Your task to perform on an android device: uninstall "Google Chrome" Image 0: 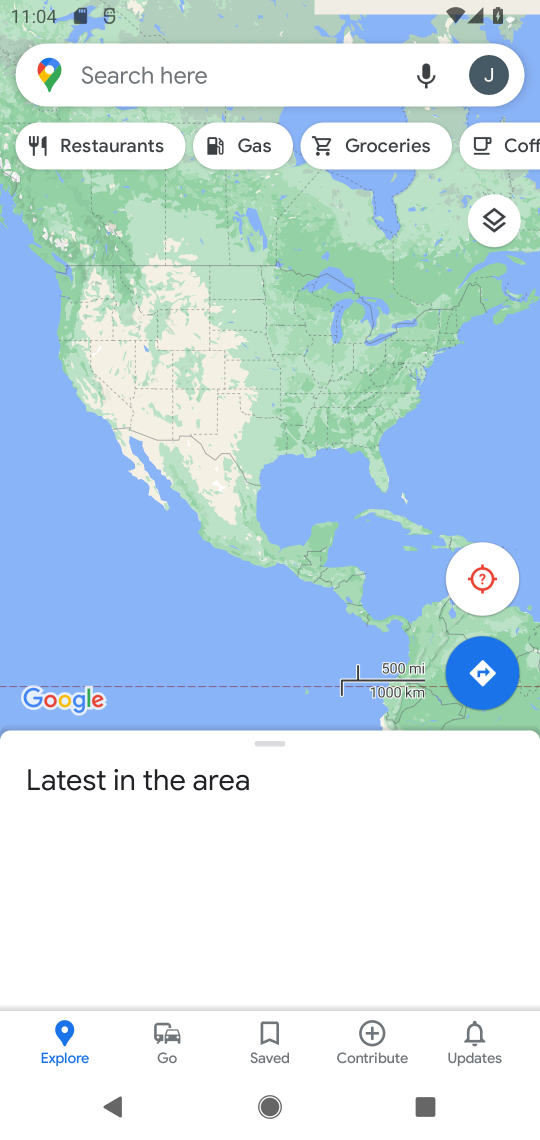
Step 0: press home button
Your task to perform on an android device: uninstall "Google Chrome" Image 1: 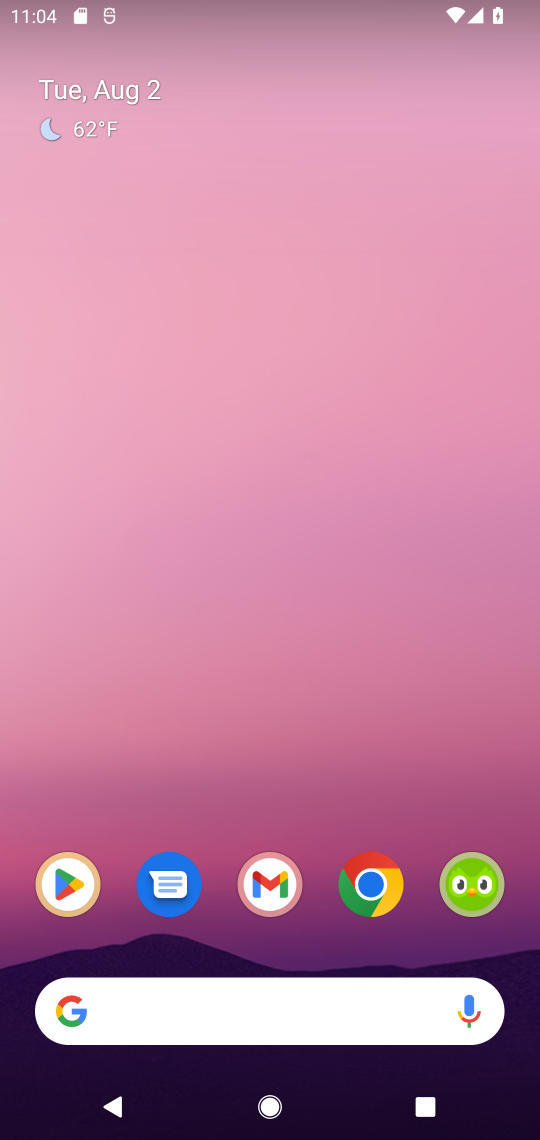
Step 1: click (69, 894)
Your task to perform on an android device: uninstall "Google Chrome" Image 2: 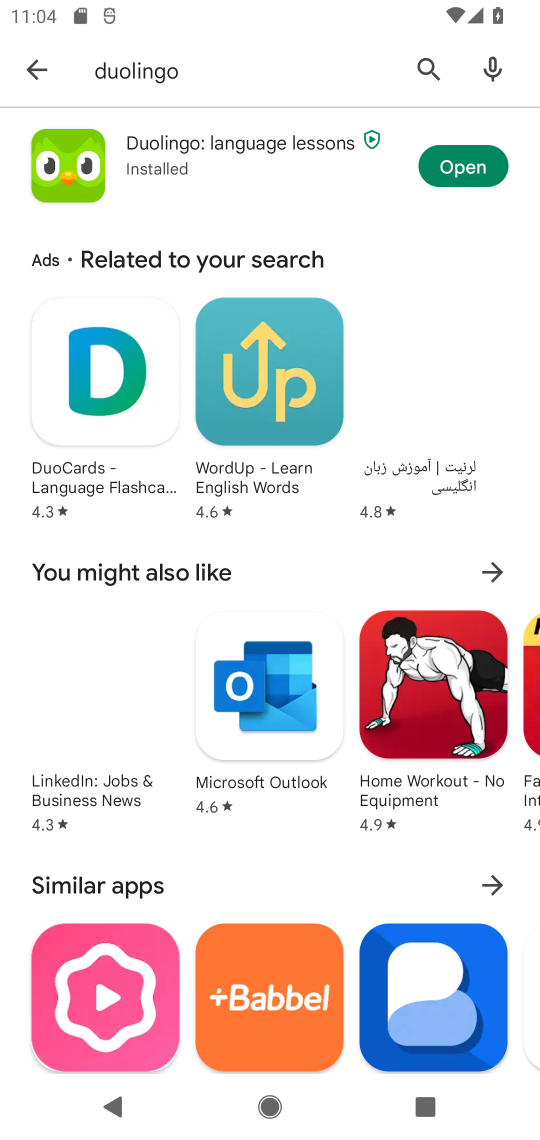
Step 2: click (205, 87)
Your task to perform on an android device: uninstall "Google Chrome" Image 3: 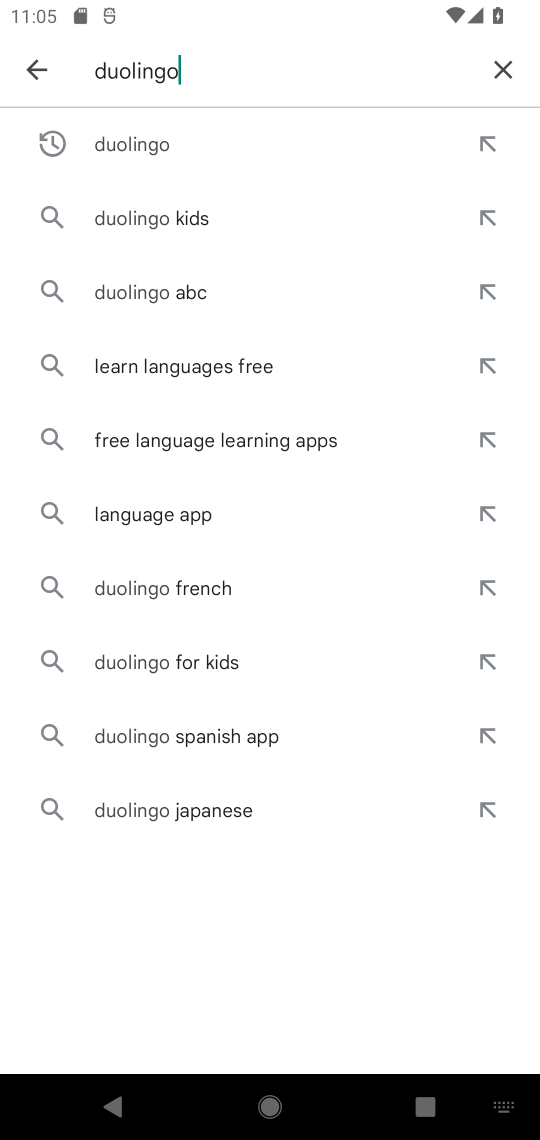
Step 3: click (486, 65)
Your task to perform on an android device: uninstall "Google Chrome" Image 4: 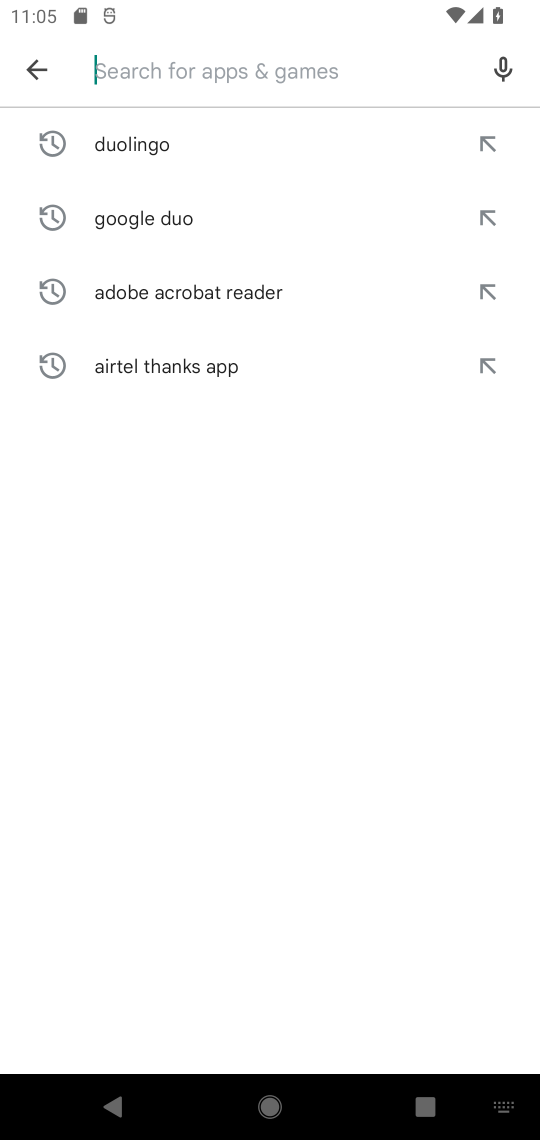
Step 4: type "google chrome"
Your task to perform on an android device: uninstall "Google Chrome" Image 5: 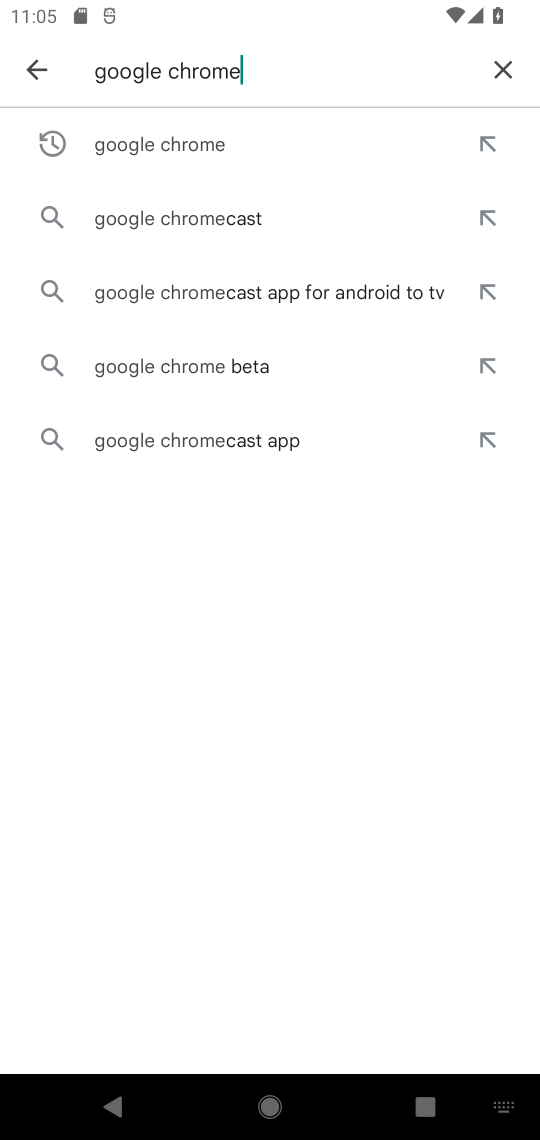
Step 5: click (238, 140)
Your task to perform on an android device: uninstall "Google Chrome" Image 6: 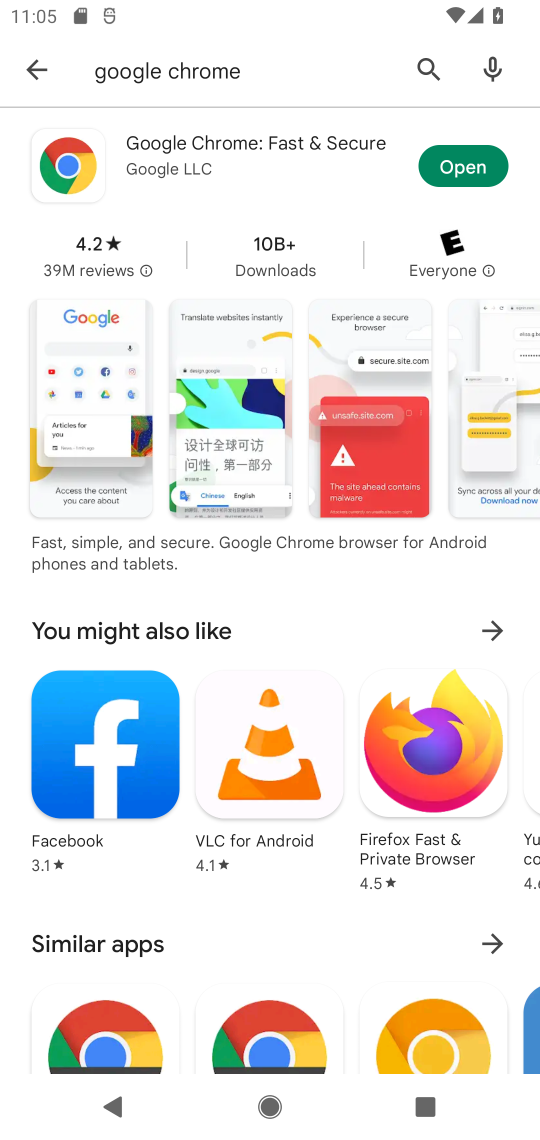
Step 6: click (24, 164)
Your task to perform on an android device: uninstall "Google Chrome" Image 7: 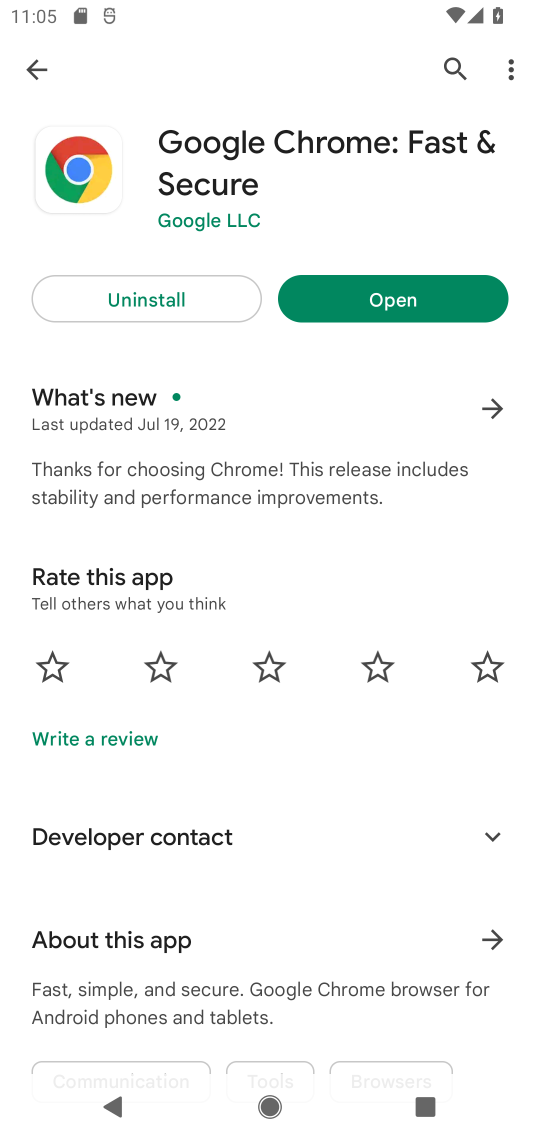
Step 7: click (178, 305)
Your task to perform on an android device: uninstall "Google Chrome" Image 8: 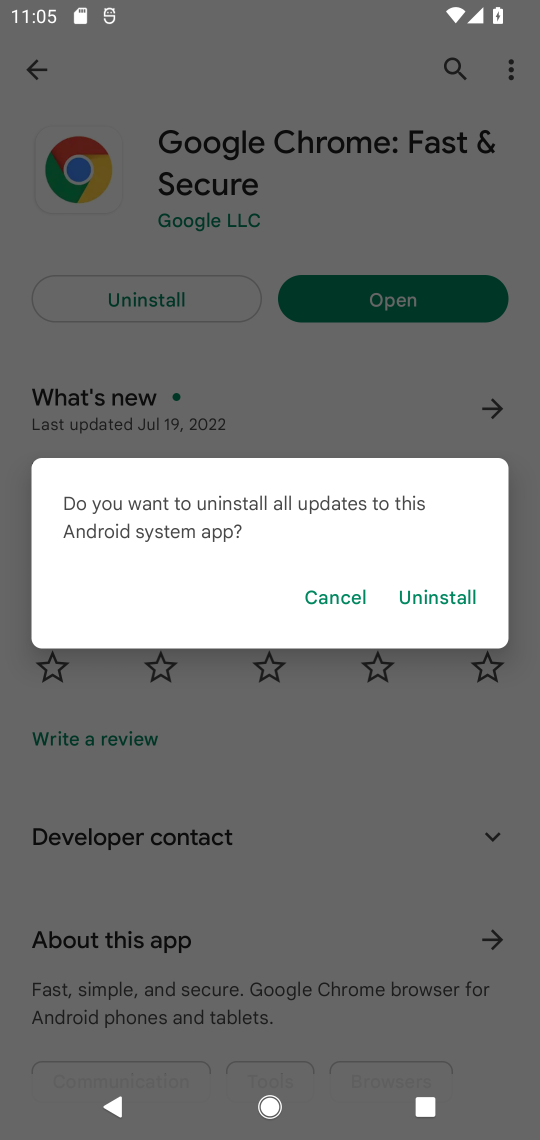
Step 8: click (464, 603)
Your task to perform on an android device: uninstall "Google Chrome" Image 9: 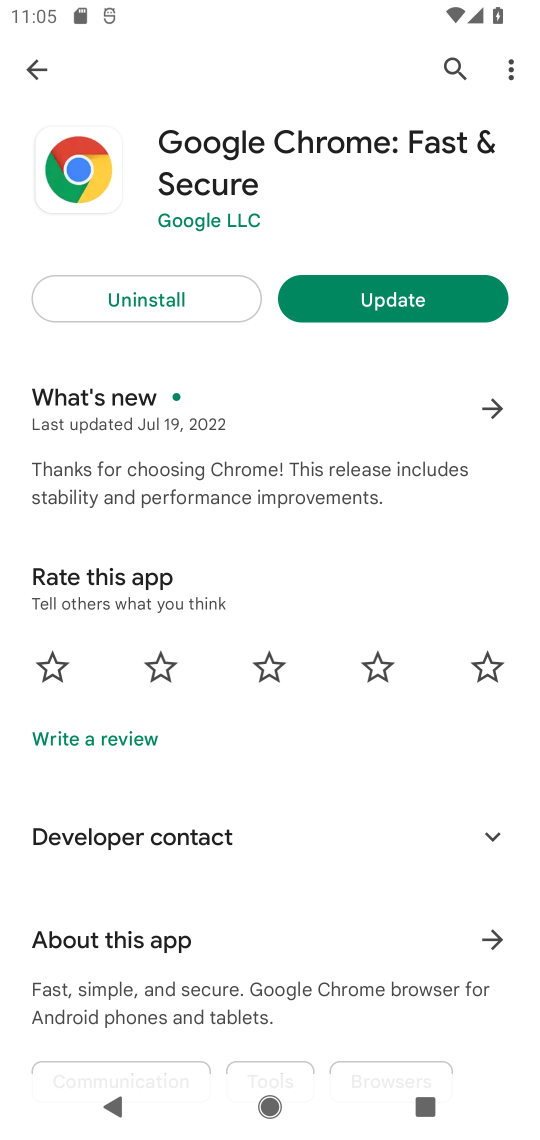
Step 9: click (171, 290)
Your task to perform on an android device: uninstall "Google Chrome" Image 10: 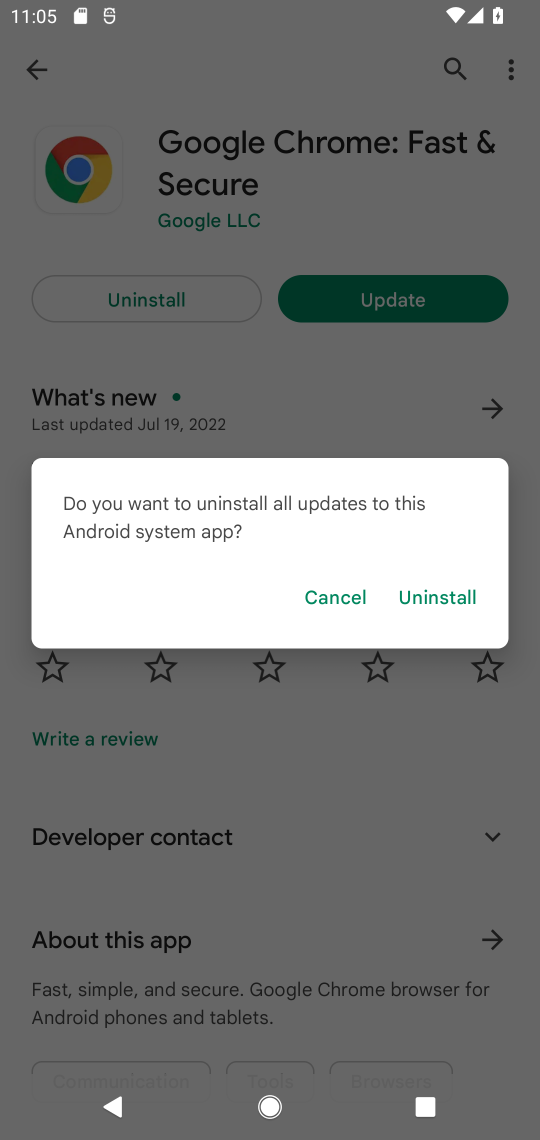
Step 10: click (474, 593)
Your task to perform on an android device: uninstall "Google Chrome" Image 11: 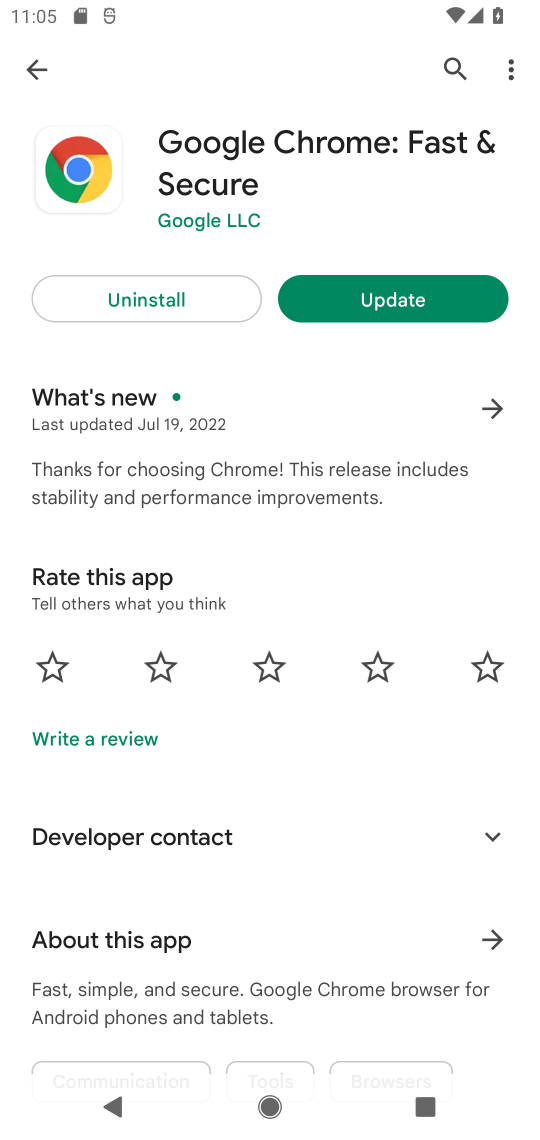
Step 11: click (183, 283)
Your task to perform on an android device: uninstall "Google Chrome" Image 12: 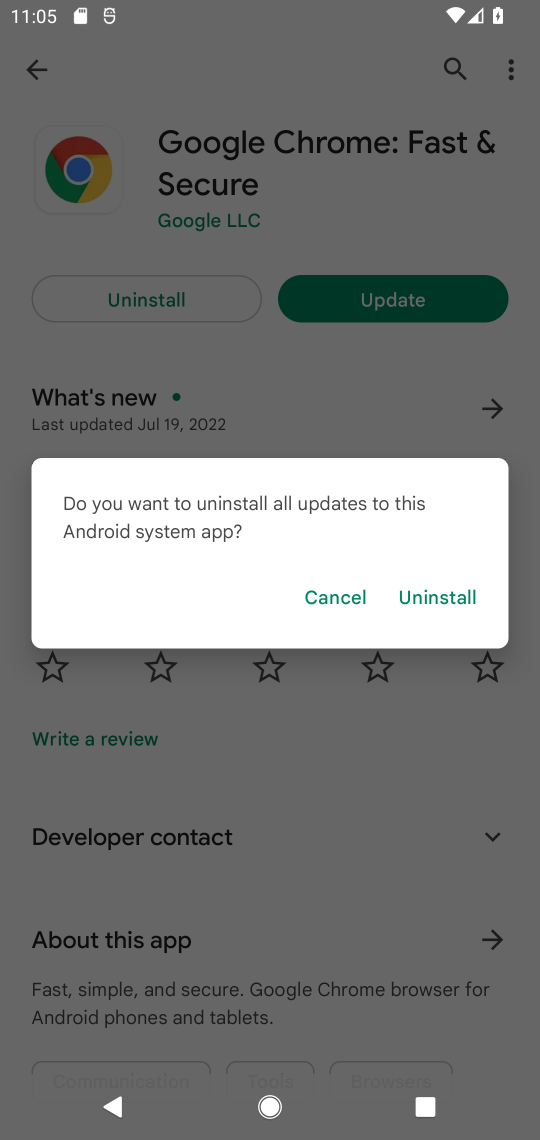
Step 12: click (429, 599)
Your task to perform on an android device: uninstall "Google Chrome" Image 13: 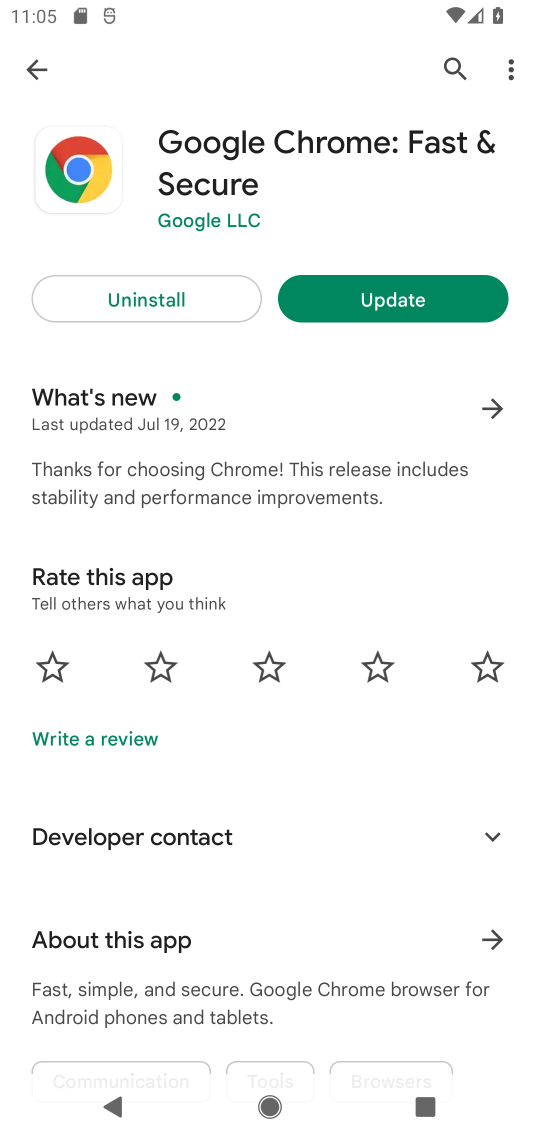
Step 13: click (219, 301)
Your task to perform on an android device: uninstall "Google Chrome" Image 14: 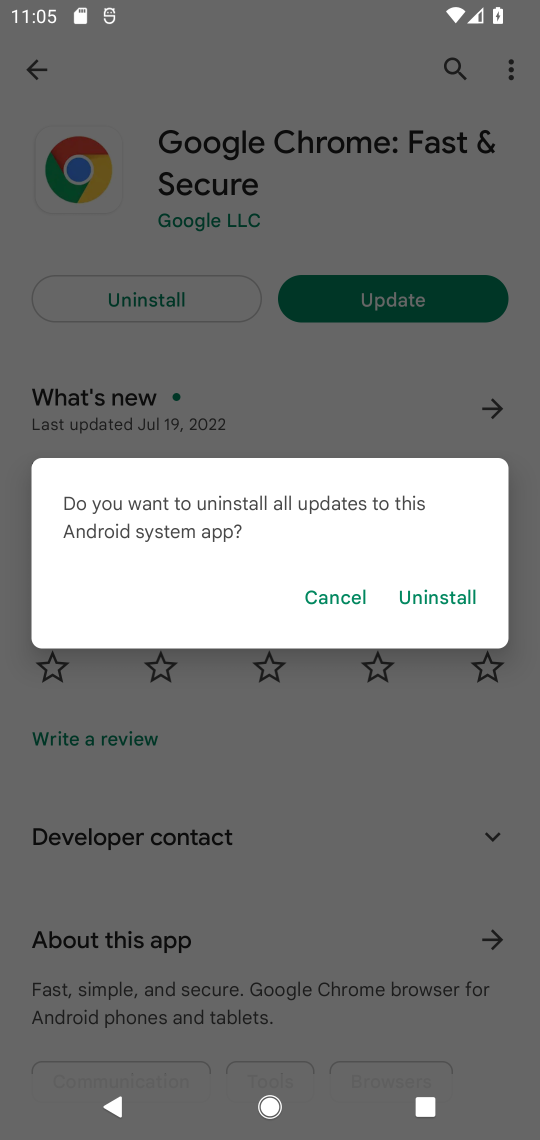
Step 14: click (486, 604)
Your task to perform on an android device: uninstall "Google Chrome" Image 15: 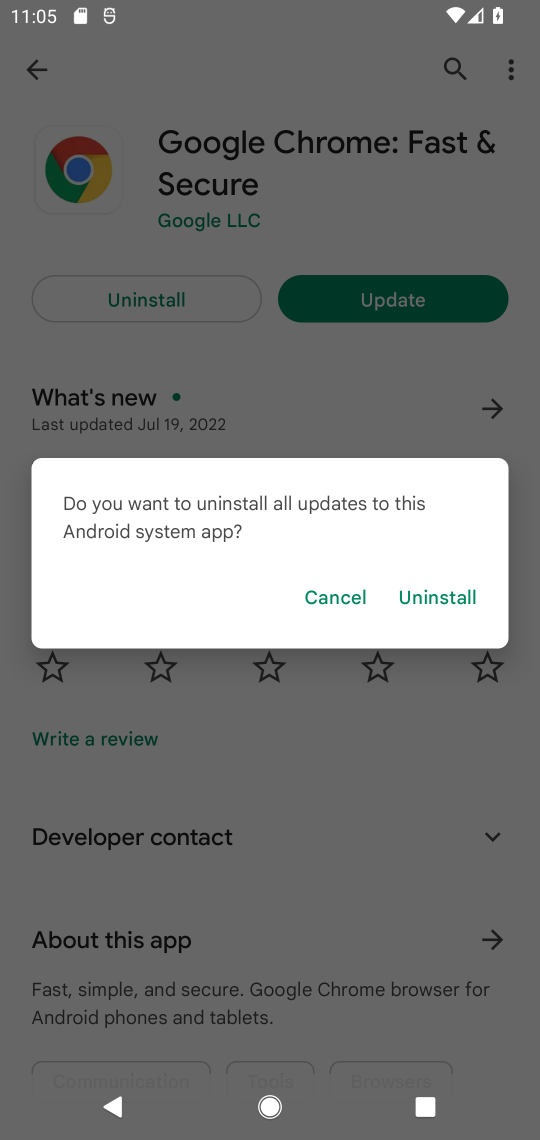
Step 15: click (442, 588)
Your task to perform on an android device: uninstall "Google Chrome" Image 16: 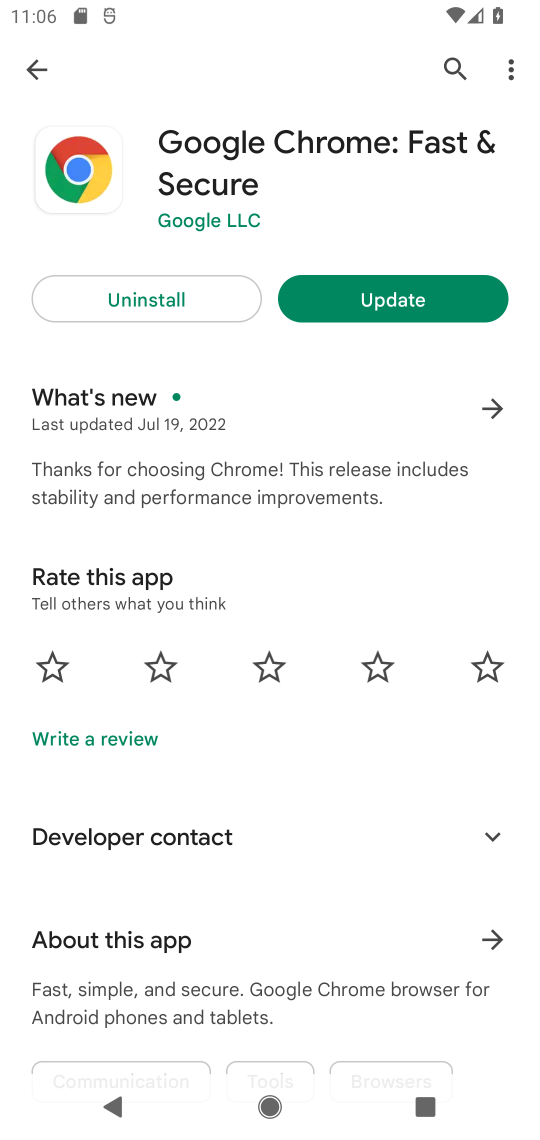
Step 16: task complete